Your task to perform on an android device: turn notification dots on Image 0: 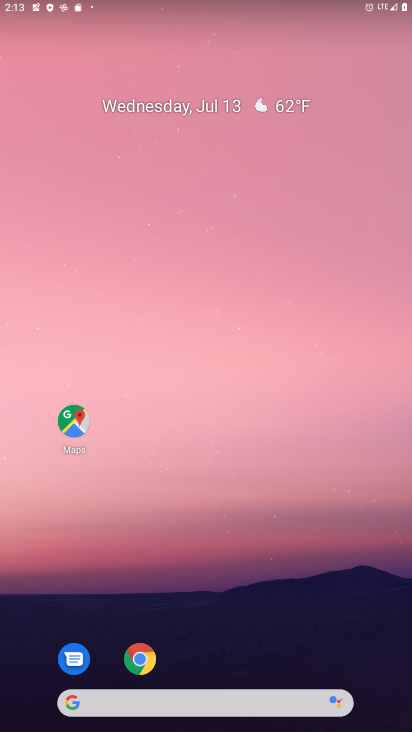
Step 0: drag from (251, 721) to (251, 119)
Your task to perform on an android device: turn notification dots on Image 1: 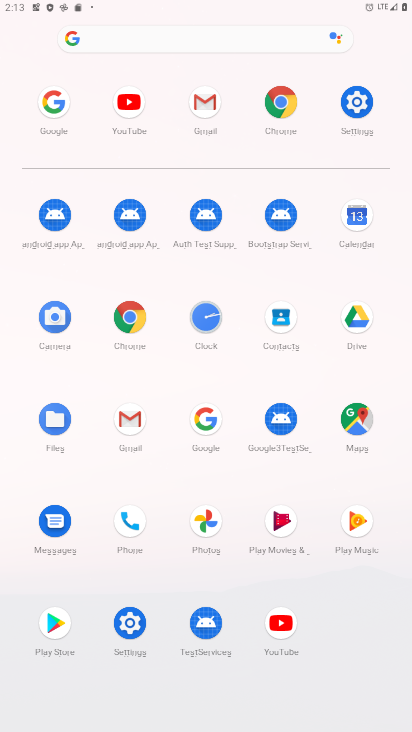
Step 1: click (354, 102)
Your task to perform on an android device: turn notification dots on Image 2: 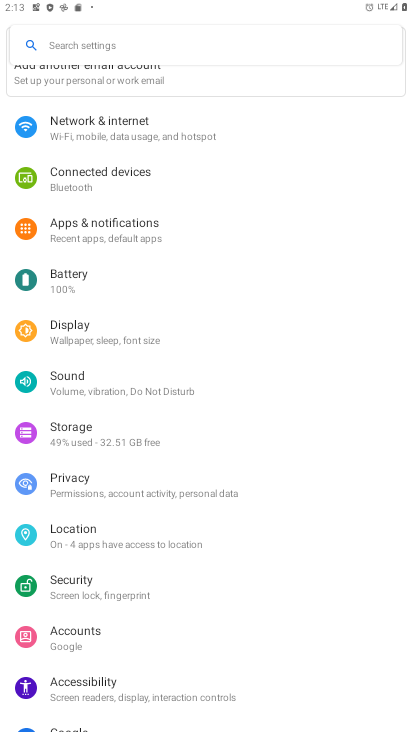
Step 2: click (124, 229)
Your task to perform on an android device: turn notification dots on Image 3: 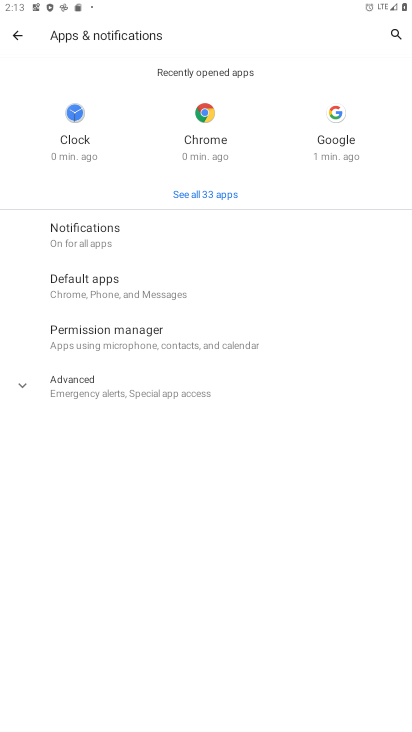
Step 3: click (85, 234)
Your task to perform on an android device: turn notification dots on Image 4: 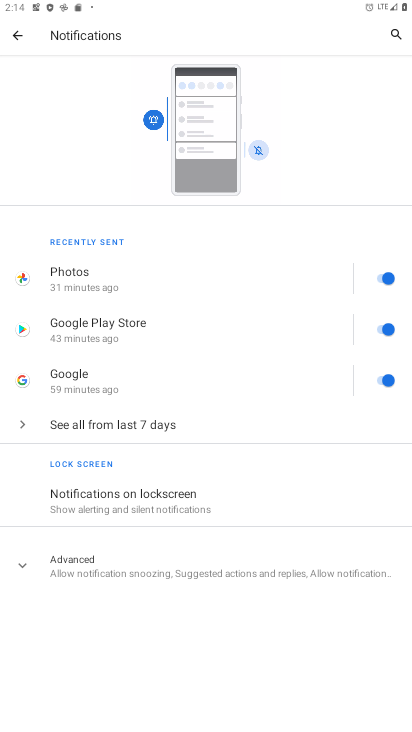
Step 4: click (247, 570)
Your task to perform on an android device: turn notification dots on Image 5: 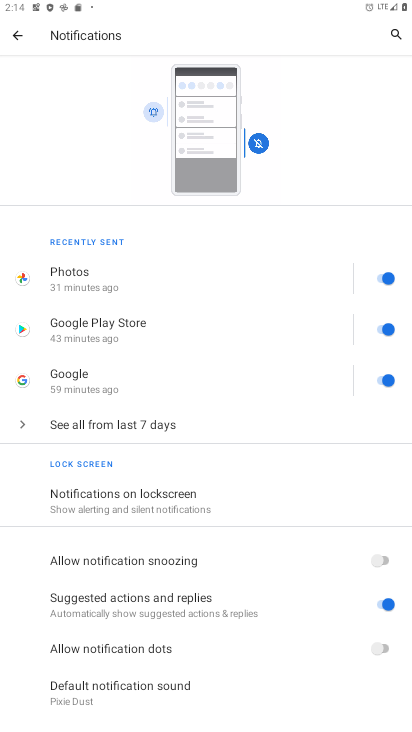
Step 5: click (381, 643)
Your task to perform on an android device: turn notification dots on Image 6: 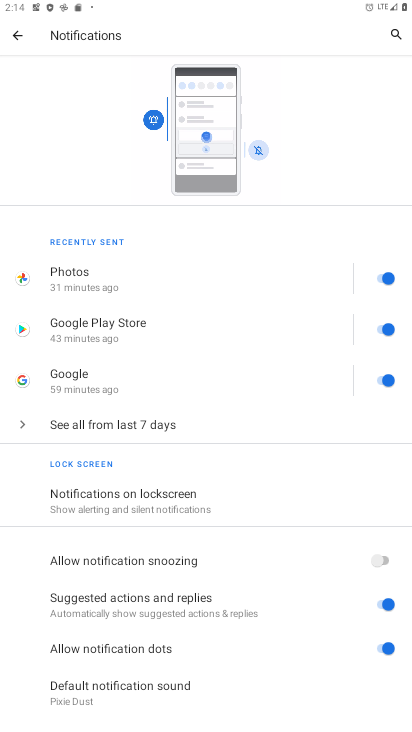
Step 6: task complete